Your task to perform on an android device: turn on priority inbox in the gmail app Image 0: 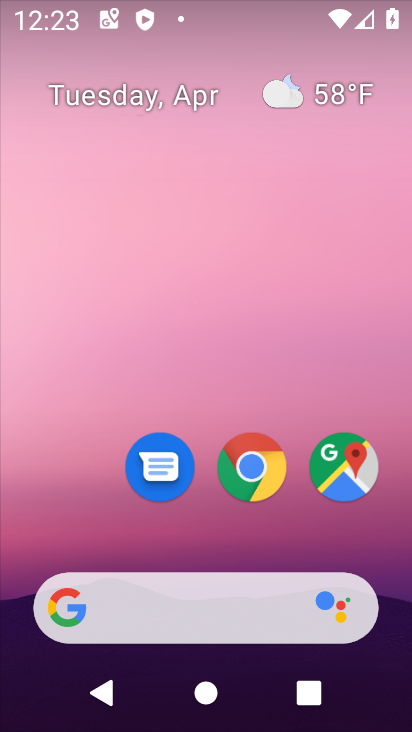
Step 0: drag from (207, 553) to (168, 9)
Your task to perform on an android device: turn on priority inbox in the gmail app Image 1: 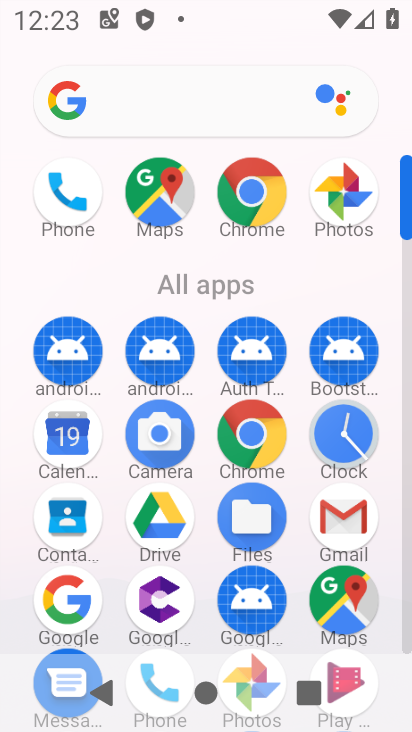
Step 1: click (342, 534)
Your task to perform on an android device: turn on priority inbox in the gmail app Image 2: 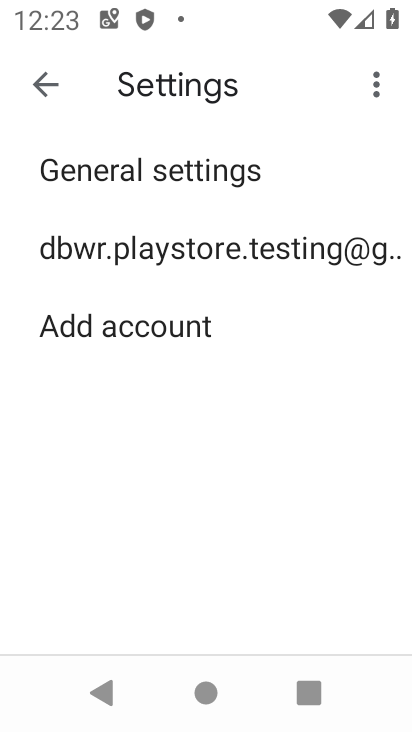
Step 2: click (201, 264)
Your task to perform on an android device: turn on priority inbox in the gmail app Image 3: 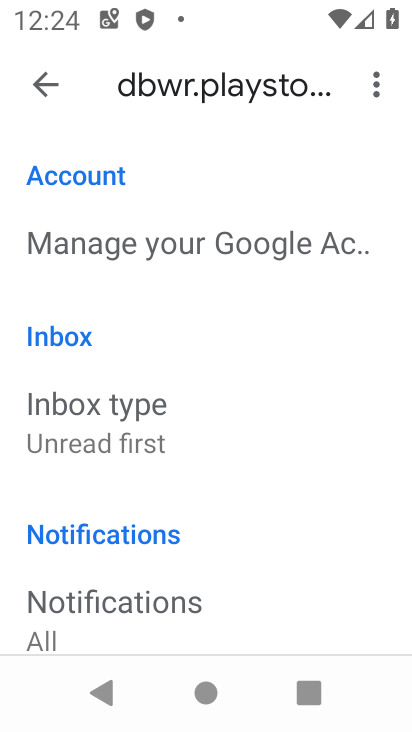
Step 3: drag from (190, 554) to (201, 126)
Your task to perform on an android device: turn on priority inbox in the gmail app Image 4: 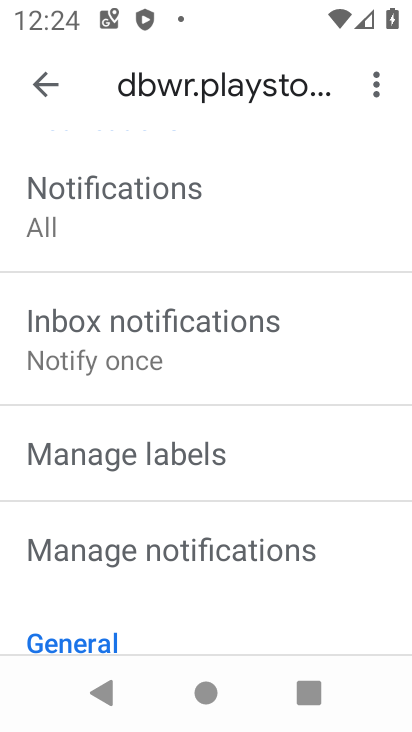
Step 4: drag from (125, 596) to (107, 157)
Your task to perform on an android device: turn on priority inbox in the gmail app Image 5: 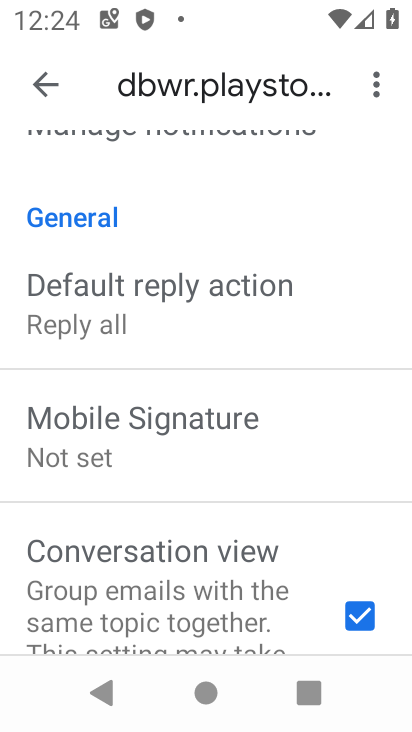
Step 5: drag from (256, 216) to (281, 647)
Your task to perform on an android device: turn on priority inbox in the gmail app Image 6: 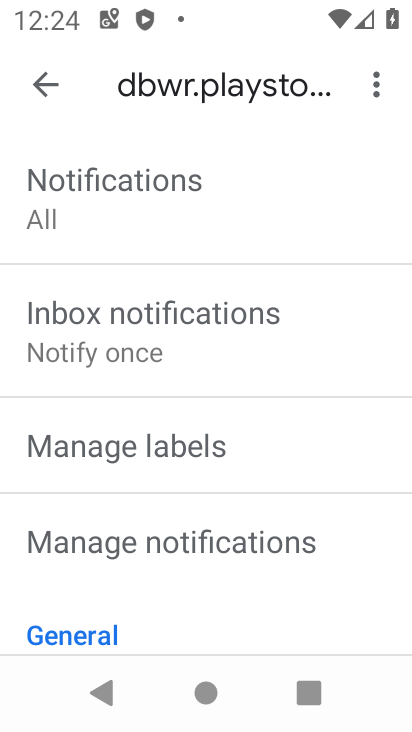
Step 6: drag from (175, 190) to (231, 537)
Your task to perform on an android device: turn on priority inbox in the gmail app Image 7: 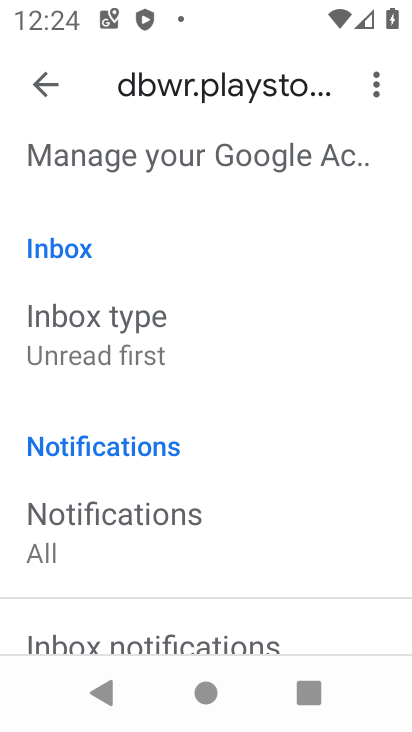
Step 7: drag from (128, 220) to (171, 595)
Your task to perform on an android device: turn on priority inbox in the gmail app Image 8: 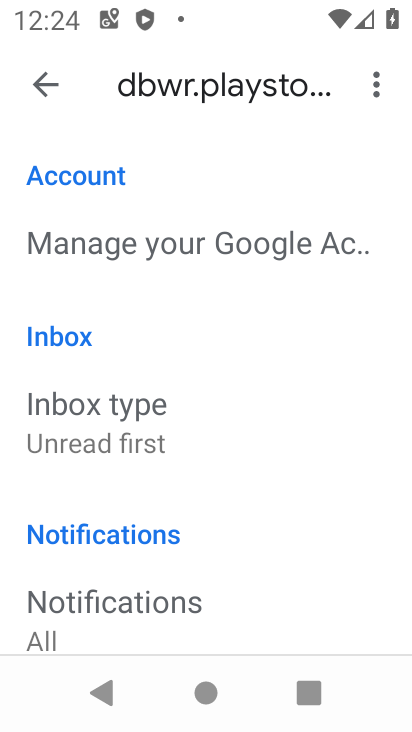
Step 8: click (66, 397)
Your task to perform on an android device: turn on priority inbox in the gmail app Image 9: 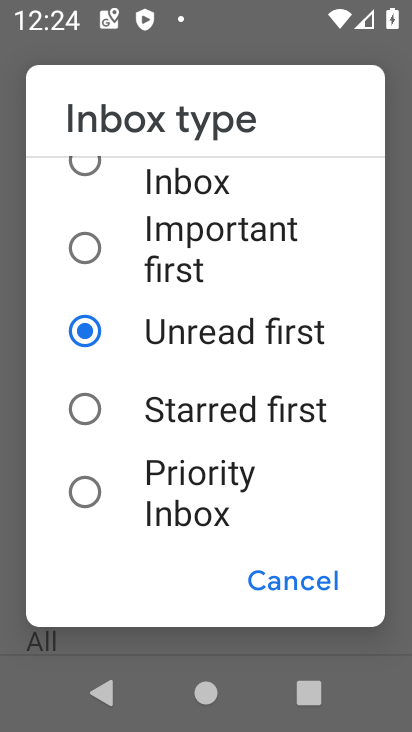
Step 9: click (187, 500)
Your task to perform on an android device: turn on priority inbox in the gmail app Image 10: 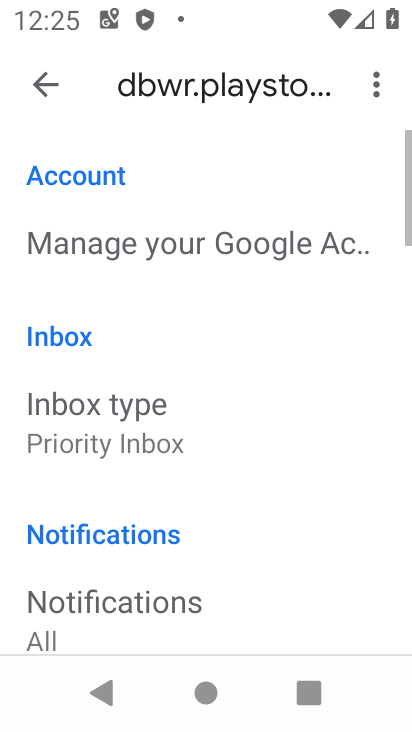
Step 10: task complete